Your task to perform on an android device: toggle notifications settings in the gmail app Image 0: 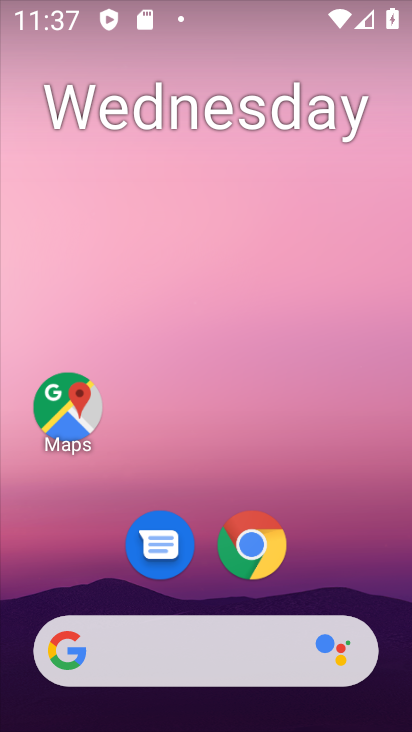
Step 0: drag from (346, 416) to (369, 132)
Your task to perform on an android device: toggle notifications settings in the gmail app Image 1: 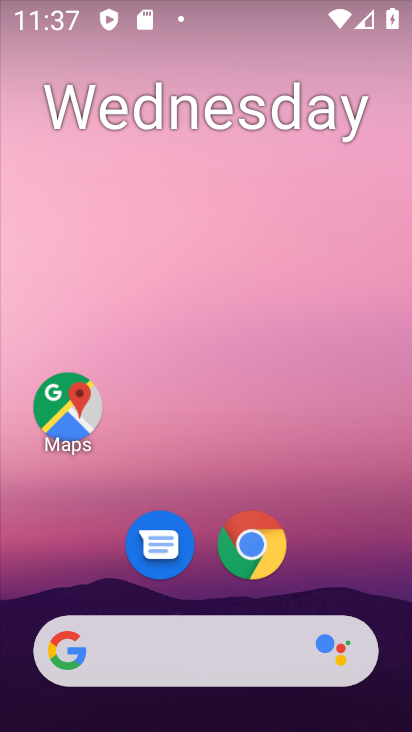
Step 1: drag from (310, 469) to (303, 117)
Your task to perform on an android device: toggle notifications settings in the gmail app Image 2: 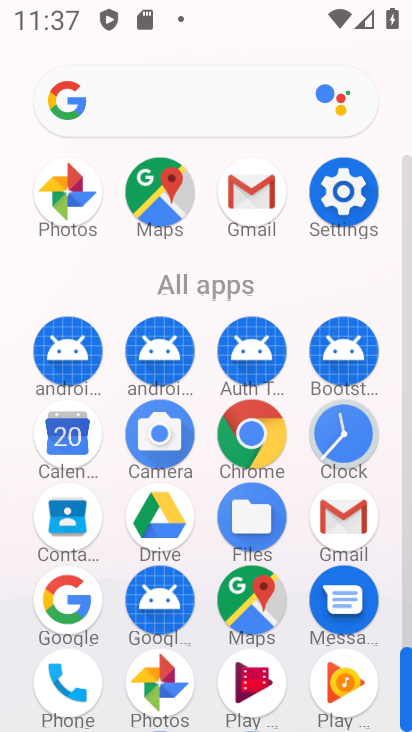
Step 2: click (248, 208)
Your task to perform on an android device: toggle notifications settings in the gmail app Image 3: 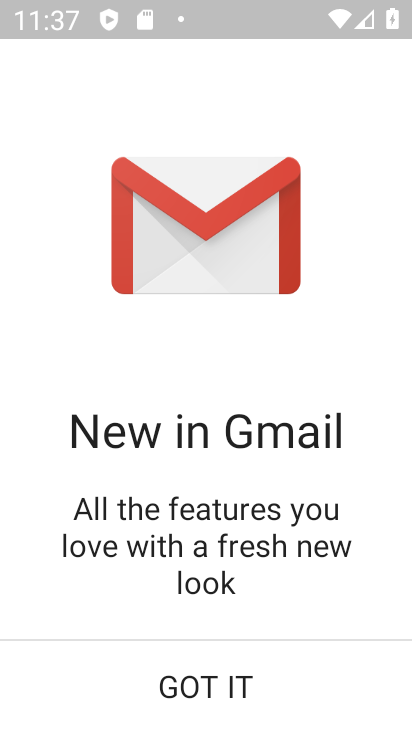
Step 3: click (198, 700)
Your task to perform on an android device: toggle notifications settings in the gmail app Image 4: 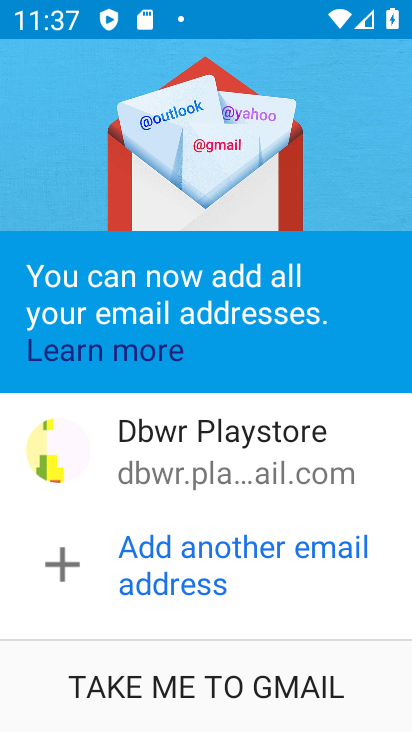
Step 4: click (196, 703)
Your task to perform on an android device: toggle notifications settings in the gmail app Image 5: 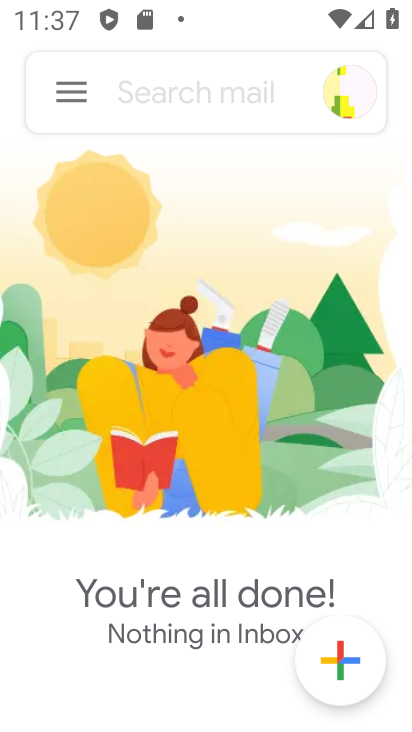
Step 5: click (65, 89)
Your task to perform on an android device: toggle notifications settings in the gmail app Image 6: 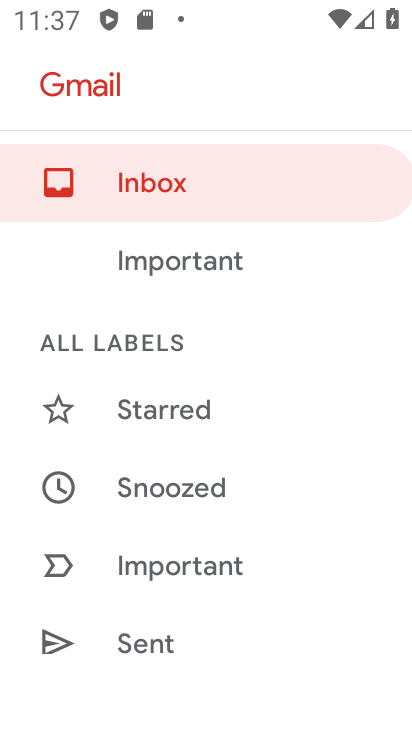
Step 6: drag from (177, 685) to (177, 180)
Your task to perform on an android device: toggle notifications settings in the gmail app Image 7: 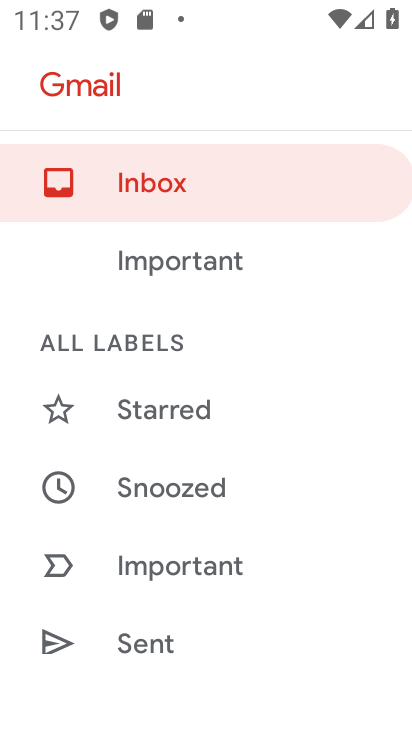
Step 7: drag from (201, 474) to (203, 205)
Your task to perform on an android device: toggle notifications settings in the gmail app Image 8: 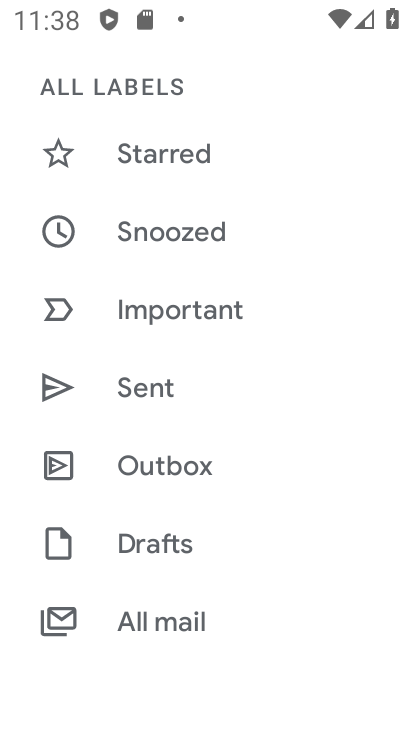
Step 8: drag from (209, 624) to (209, 275)
Your task to perform on an android device: toggle notifications settings in the gmail app Image 9: 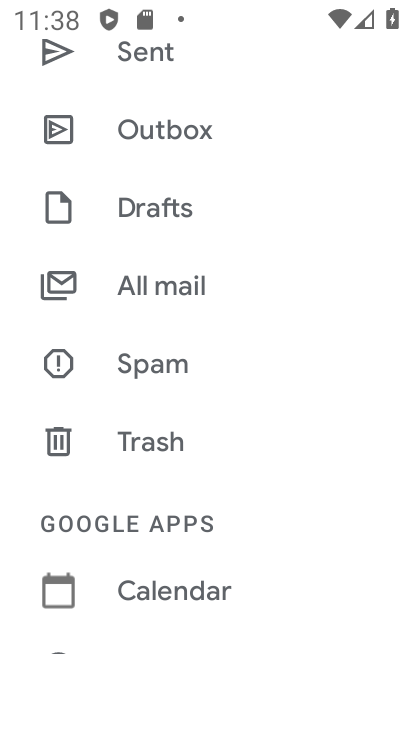
Step 9: drag from (195, 596) to (195, 276)
Your task to perform on an android device: toggle notifications settings in the gmail app Image 10: 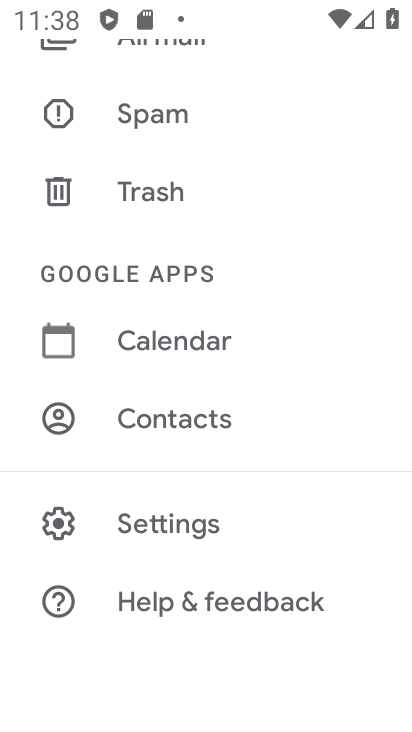
Step 10: click (170, 519)
Your task to perform on an android device: toggle notifications settings in the gmail app Image 11: 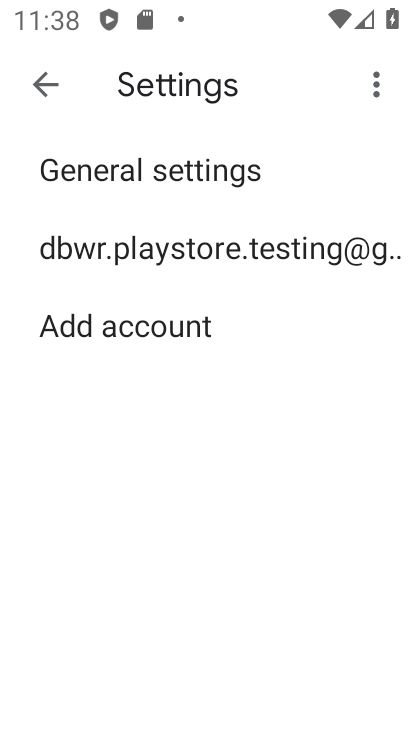
Step 11: drag from (168, 507) to (135, 360)
Your task to perform on an android device: toggle notifications settings in the gmail app Image 12: 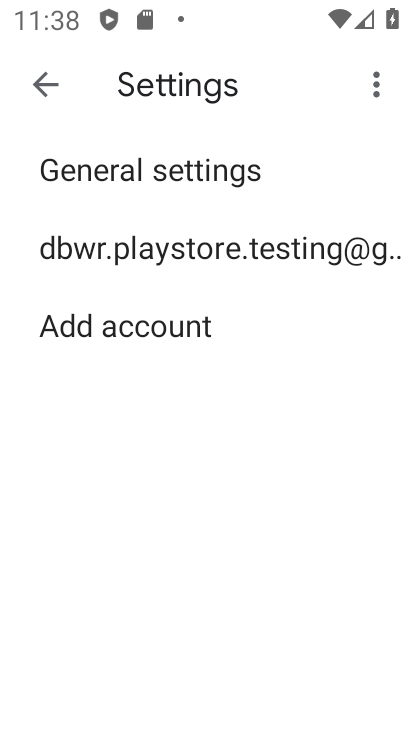
Step 12: drag from (147, 590) to (187, 287)
Your task to perform on an android device: toggle notifications settings in the gmail app Image 13: 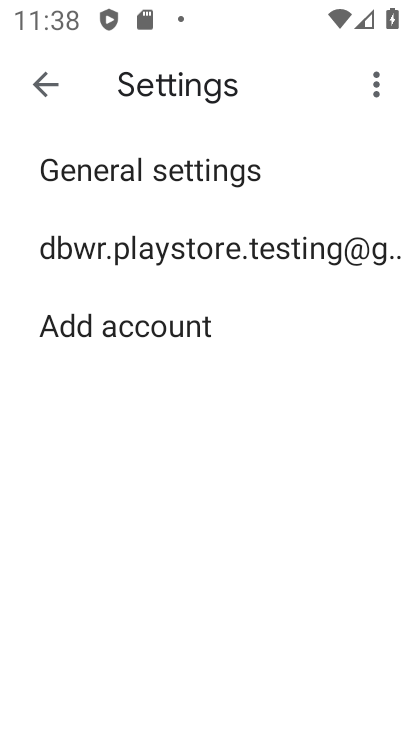
Step 13: click (188, 255)
Your task to perform on an android device: toggle notifications settings in the gmail app Image 14: 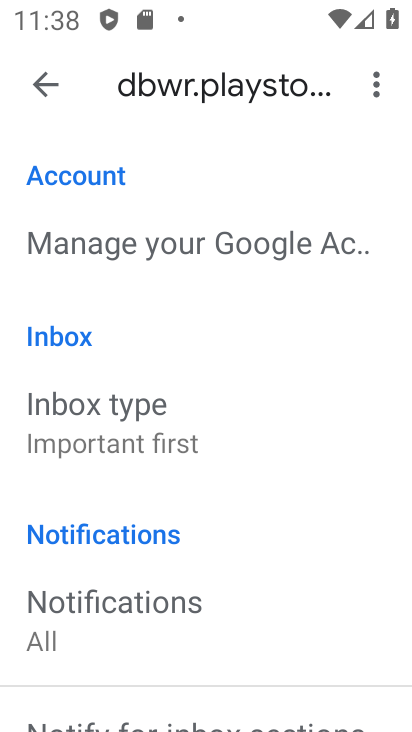
Step 14: click (200, 622)
Your task to perform on an android device: toggle notifications settings in the gmail app Image 15: 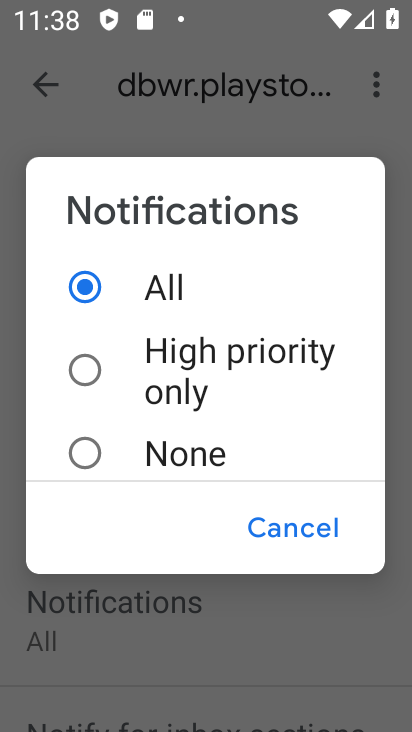
Step 15: click (175, 379)
Your task to perform on an android device: toggle notifications settings in the gmail app Image 16: 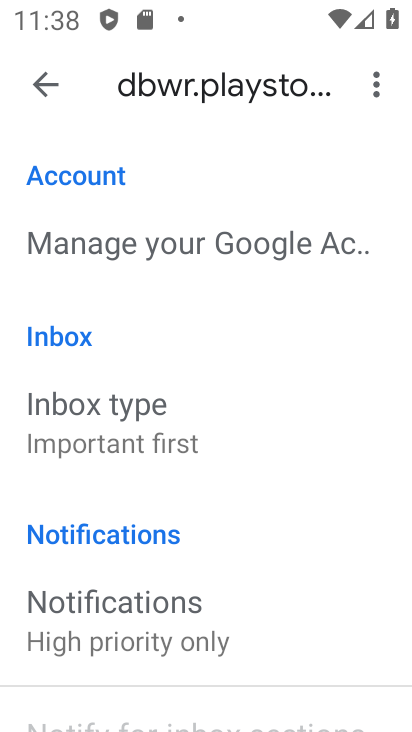
Step 16: task complete